Your task to perform on an android device: Open the stopwatch Image 0: 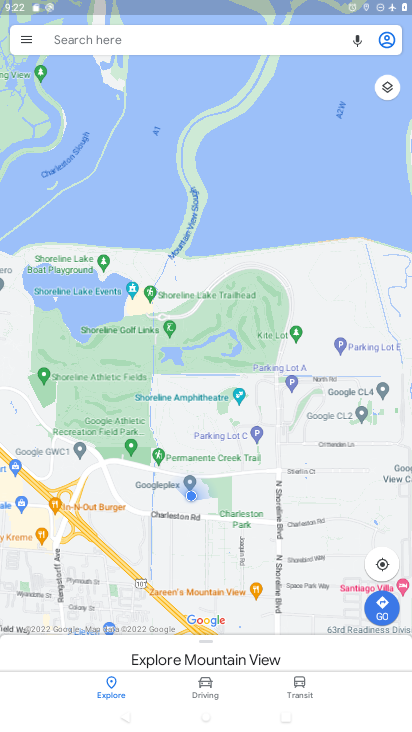
Step 0: press home button
Your task to perform on an android device: Open the stopwatch Image 1: 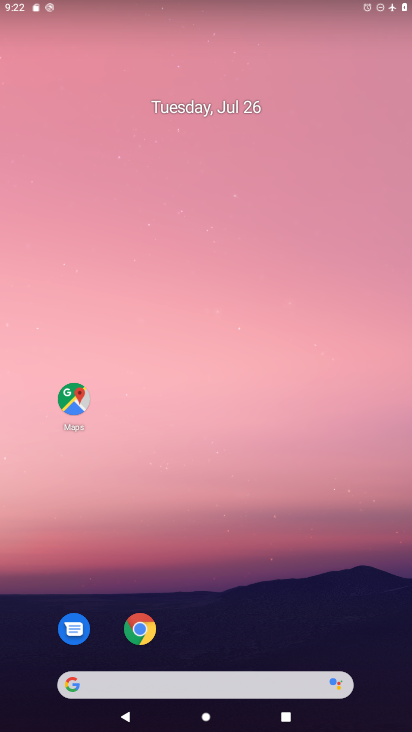
Step 1: drag from (201, 671) to (161, 218)
Your task to perform on an android device: Open the stopwatch Image 2: 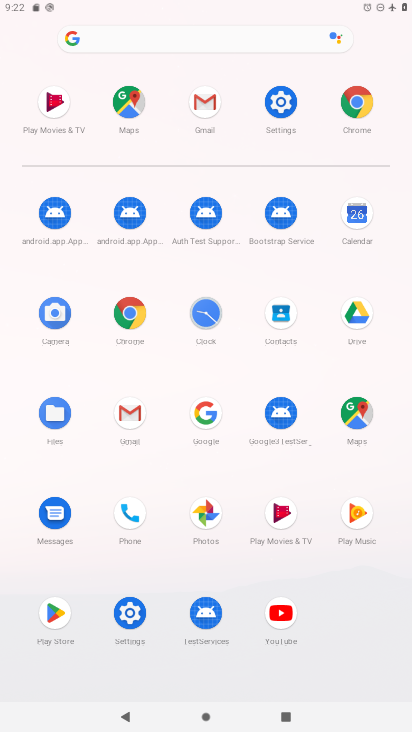
Step 2: click (212, 325)
Your task to perform on an android device: Open the stopwatch Image 3: 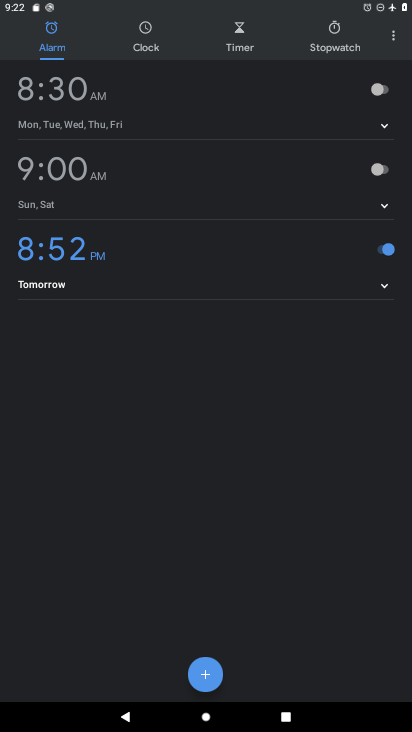
Step 3: click (320, 45)
Your task to perform on an android device: Open the stopwatch Image 4: 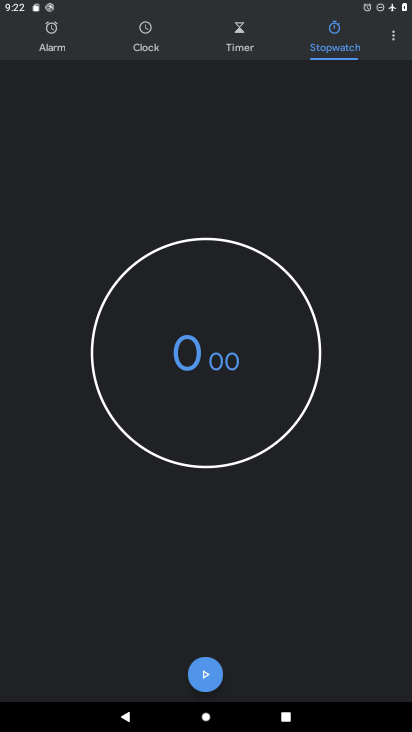
Step 4: task complete